Your task to perform on an android device: open a bookmark in the chrome app Image 0: 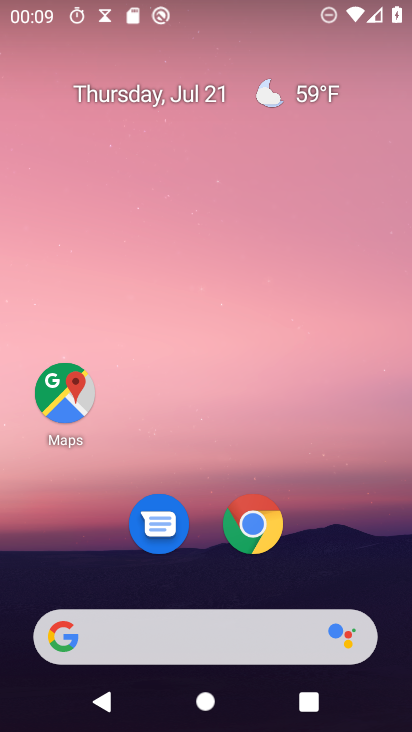
Step 0: press home button
Your task to perform on an android device: open a bookmark in the chrome app Image 1: 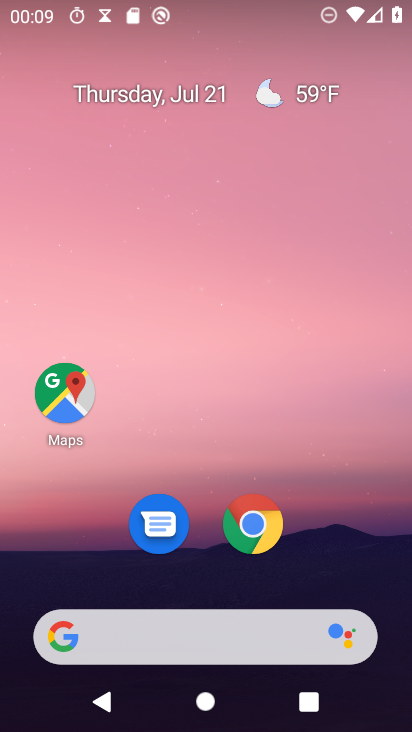
Step 1: click (244, 534)
Your task to perform on an android device: open a bookmark in the chrome app Image 2: 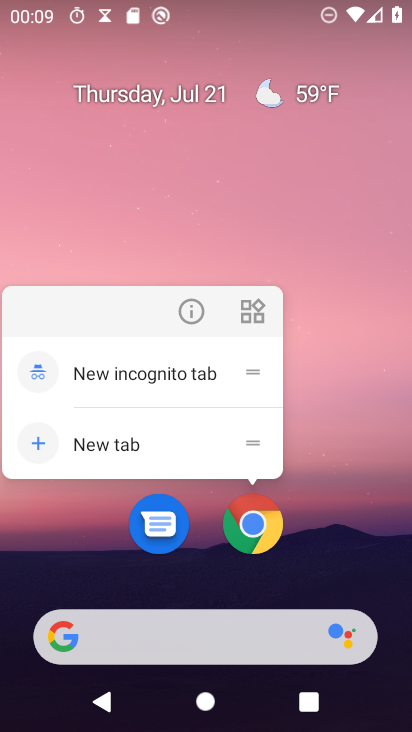
Step 2: click (259, 522)
Your task to perform on an android device: open a bookmark in the chrome app Image 3: 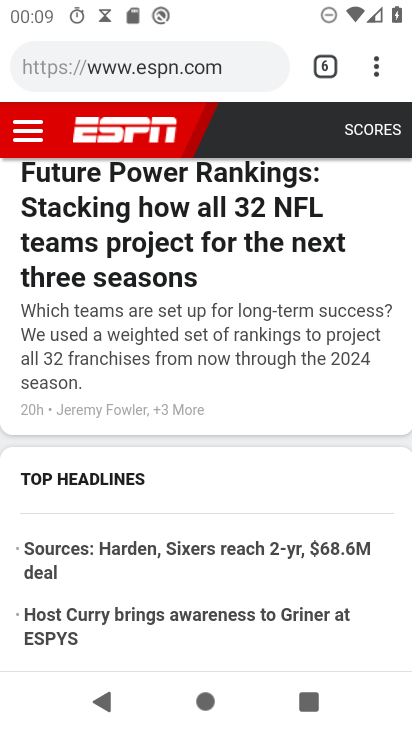
Step 3: task complete